Your task to perform on an android device: Go to ESPN.com Image 0: 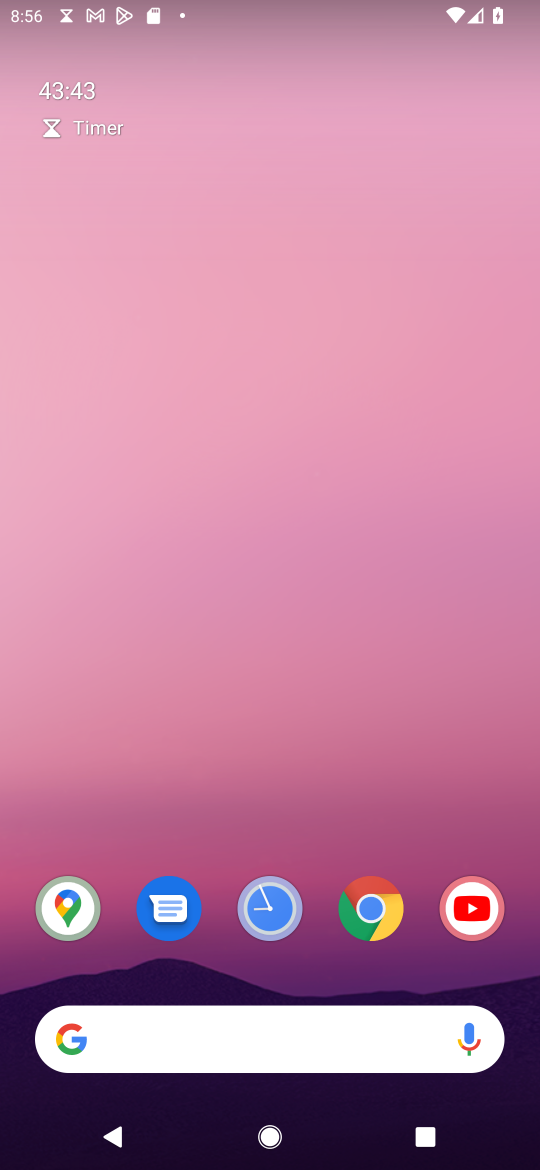
Step 0: click (378, 943)
Your task to perform on an android device: Go to ESPN.com Image 1: 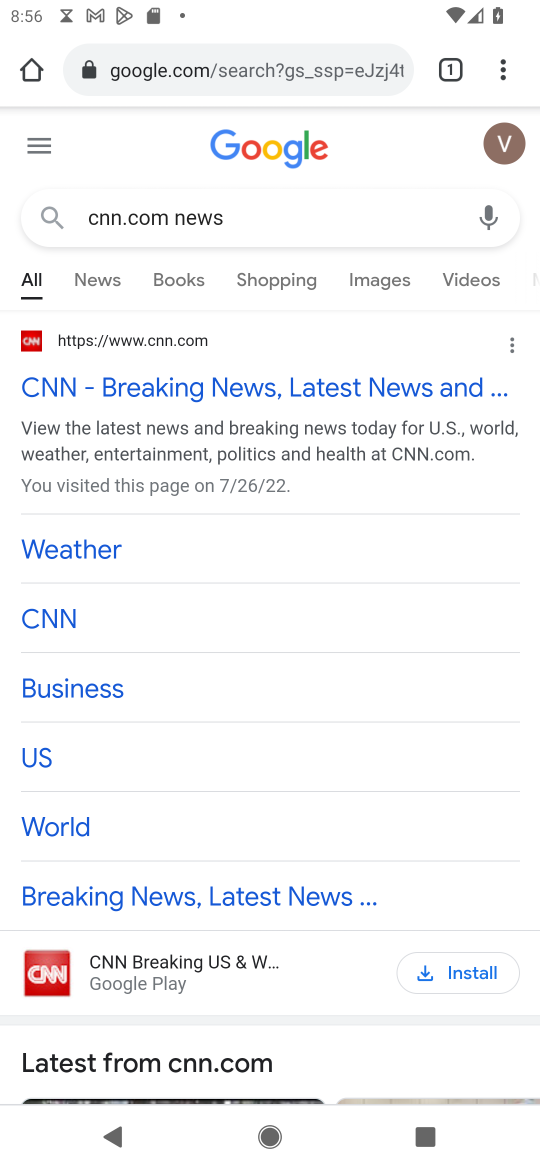
Step 1: click (227, 79)
Your task to perform on an android device: Go to ESPN.com Image 2: 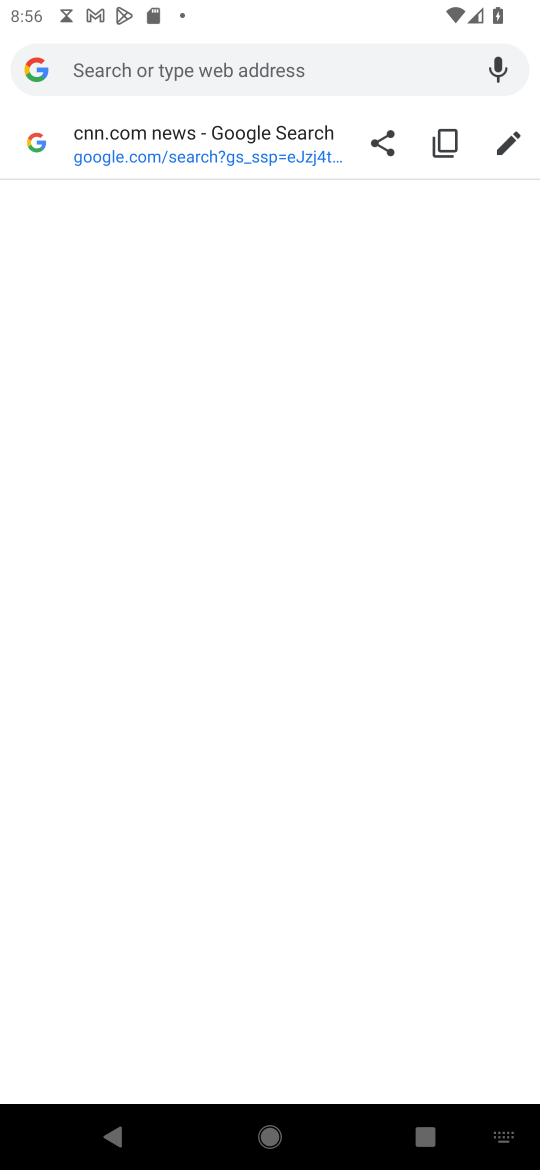
Step 2: type "espn.com"
Your task to perform on an android device: Go to ESPN.com Image 3: 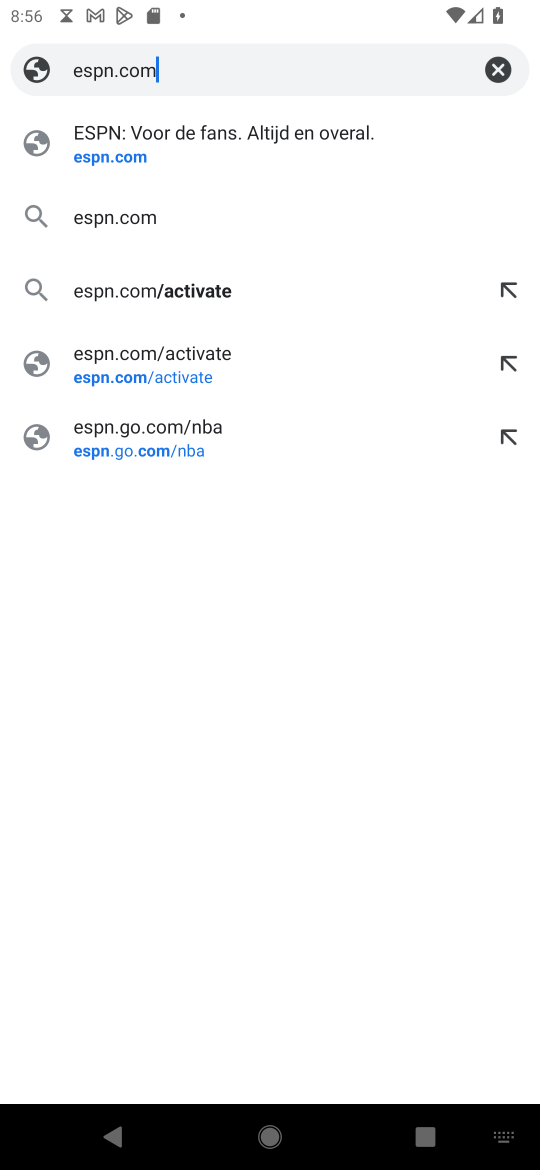
Step 3: click (159, 134)
Your task to perform on an android device: Go to ESPN.com Image 4: 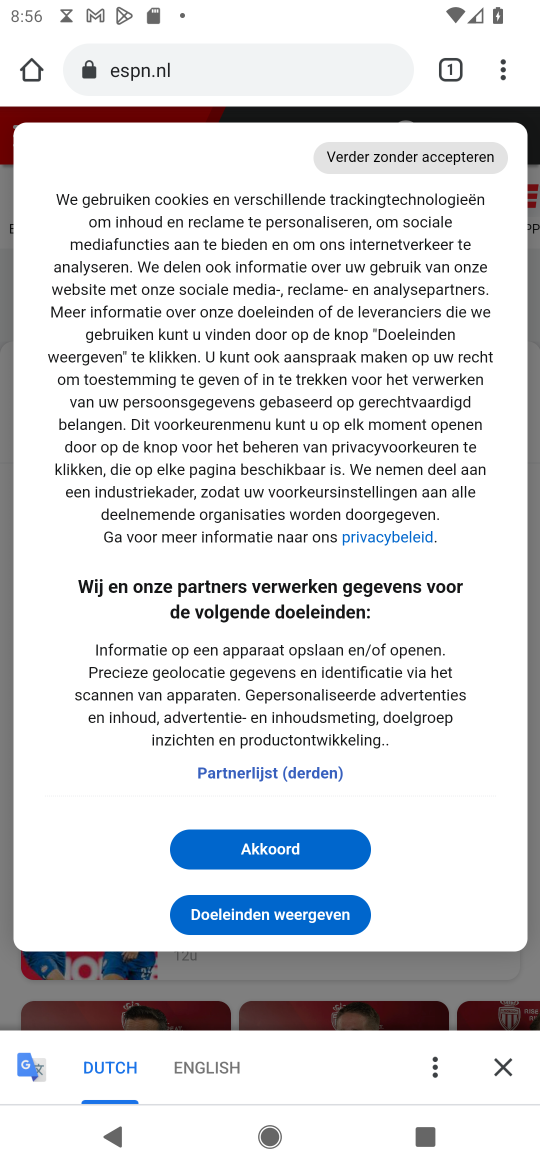
Step 4: task complete